Your task to perform on an android device: change timer sound Image 0: 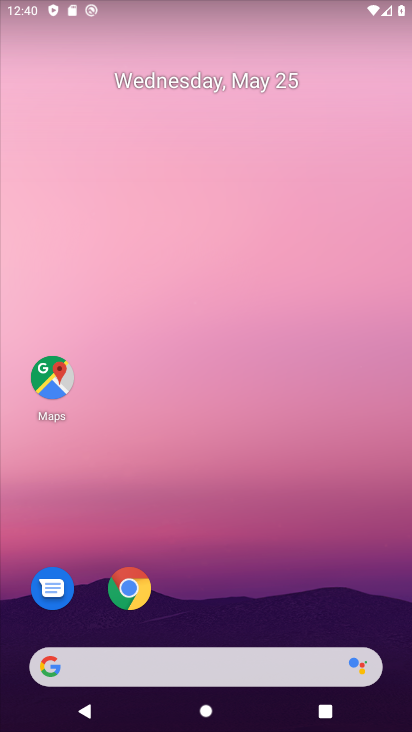
Step 0: drag from (205, 584) to (209, 69)
Your task to perform on an android device: change timer sound Image 1: 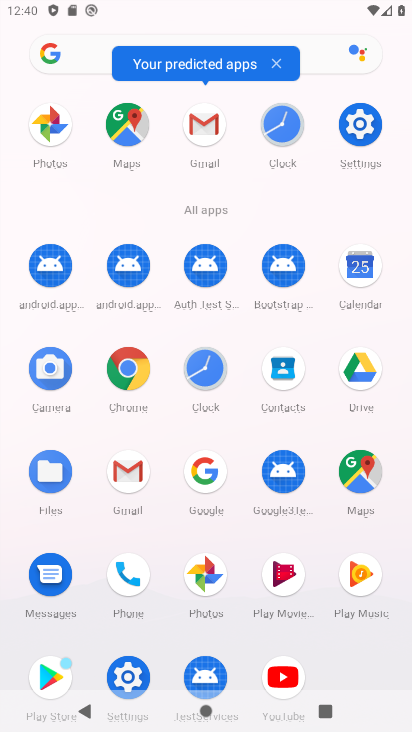
Step 1: click (278, 151)
Your task to perform on an android device: change timer sound Image 2: 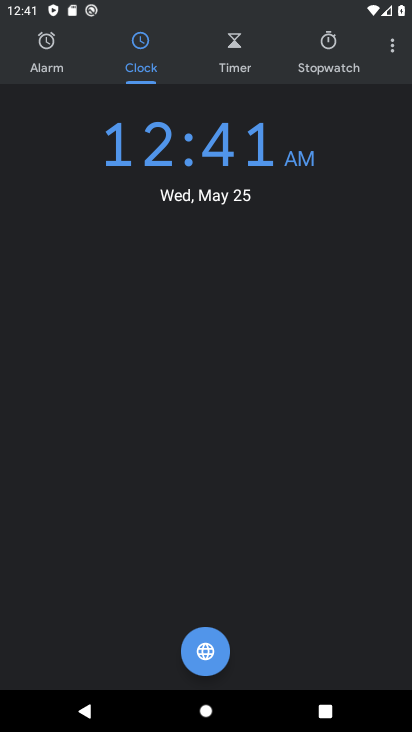
Step 2: click (387, 57)
Your task to perform on an android device: change timer sound Image 3: 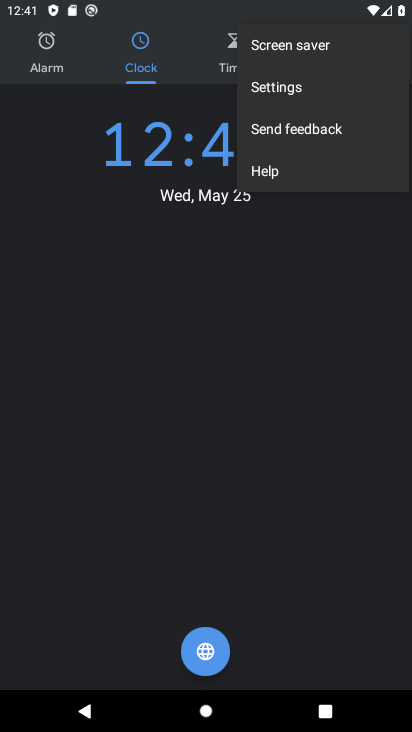
Step 3: click (299, 93)
Your task to perform on an android device: change timer sound Image 4: 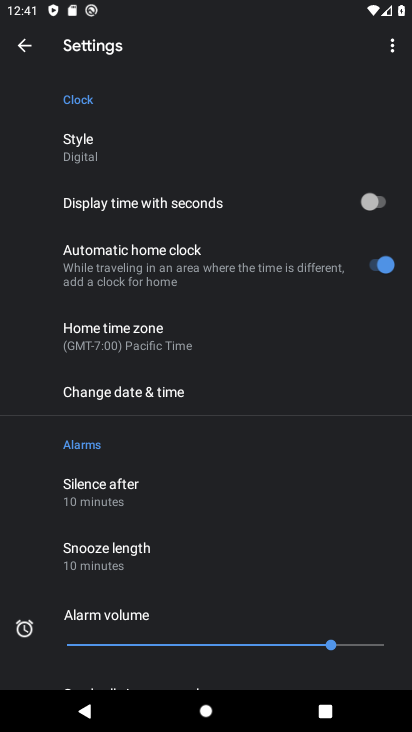
Step 4: drag from (291, 507) to (266, 86)
Your task to perform on an android device: change timer sound Image 5: 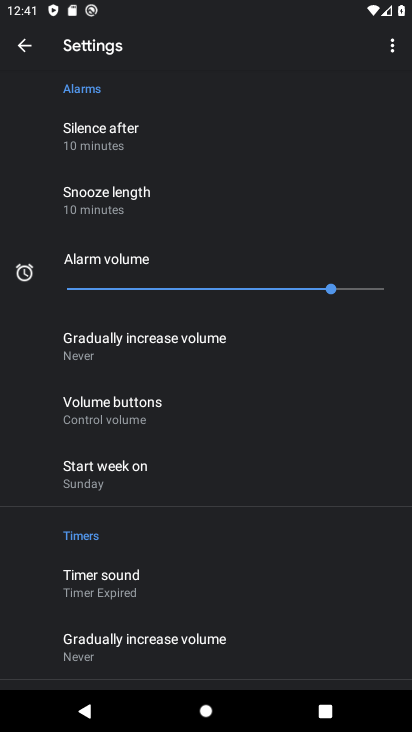
Step 5: click (159, 604)
Your task to perform on an android device: change timer sound Image 6: 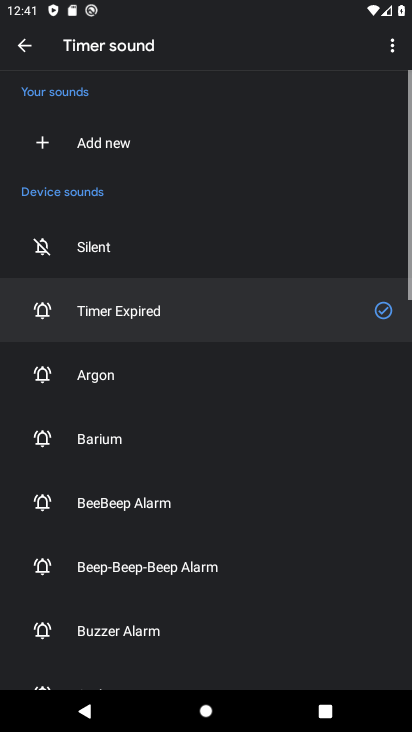
Step 6: click (150, 410)
Your task to perform on an android device: change timer sound Image 7: 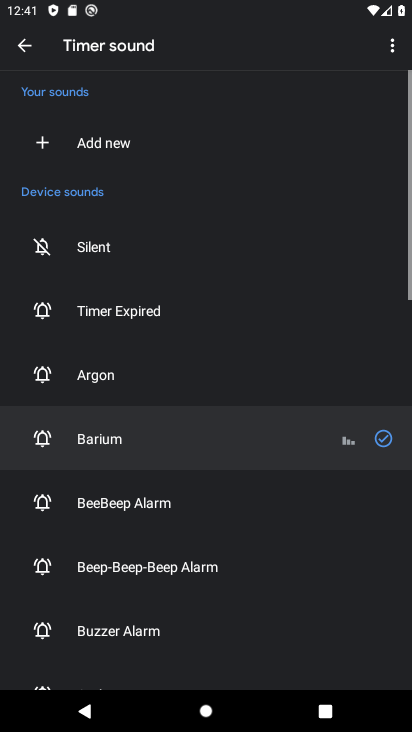
Step 7: task complete